Your task to perform on an android device: Go to display settings Image 0: 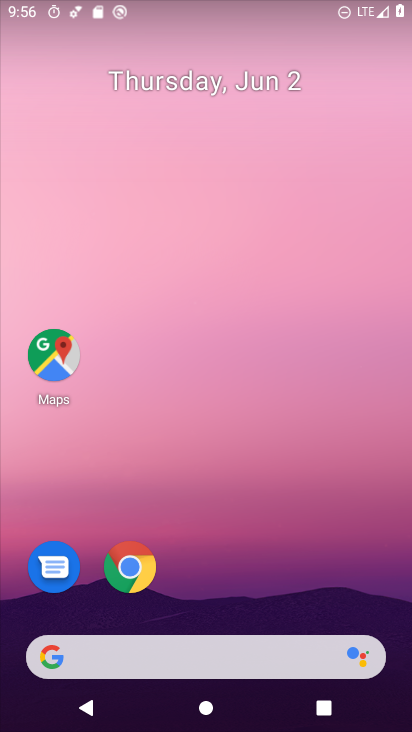
Step 0: drag from (328, 538) to (290, 66)
Your task to perform on an android device: Go to display settings Image 1: 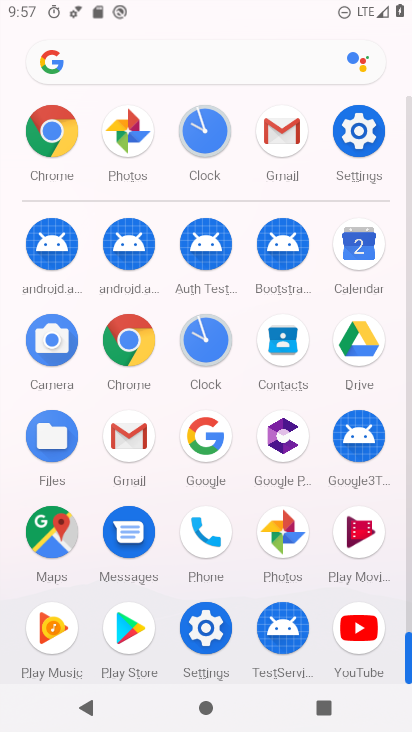
Step 1: click (211, 617)
Your task to perform on an android device: Go to display settings Image 2: 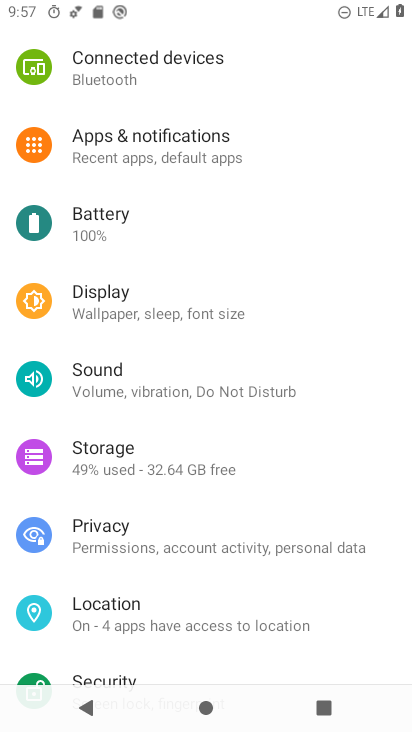
Step 2: click (150, 308)
Your task to perform on an android device: Go to display settings Image 3: 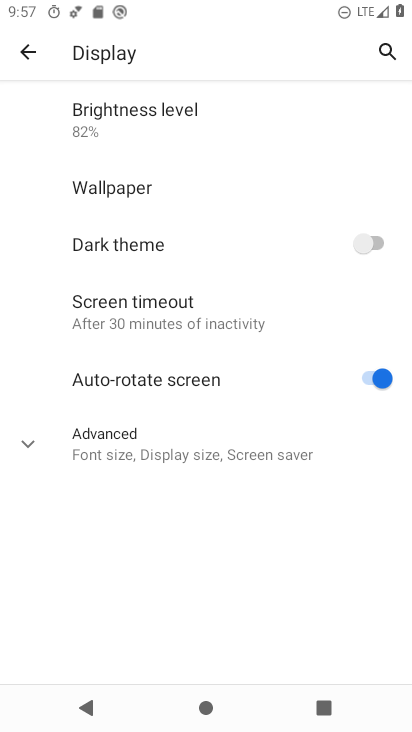
Step 3: task complete